Your task to perform on an android device: move a message to another label in the gmail app Image 0: 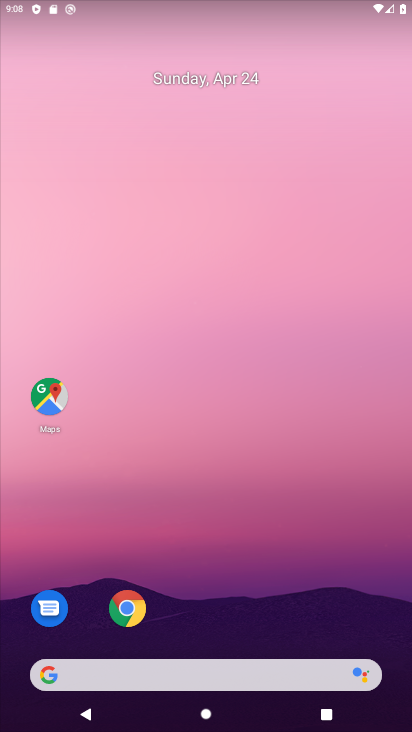
Step 0: drag from (361, 605) to (343, 66)
Your task to perform on an android device: move a message to another label in the gmail app Image 1: 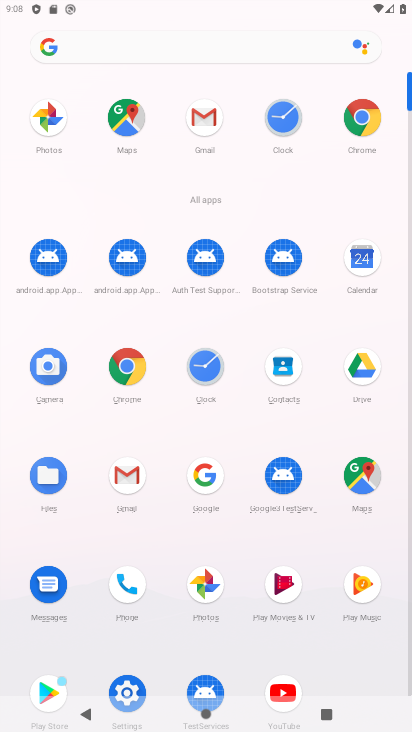
Step 1: click (131, 476)
Your task to perform on an android device: move a message to another label in the gmail app Image 2: 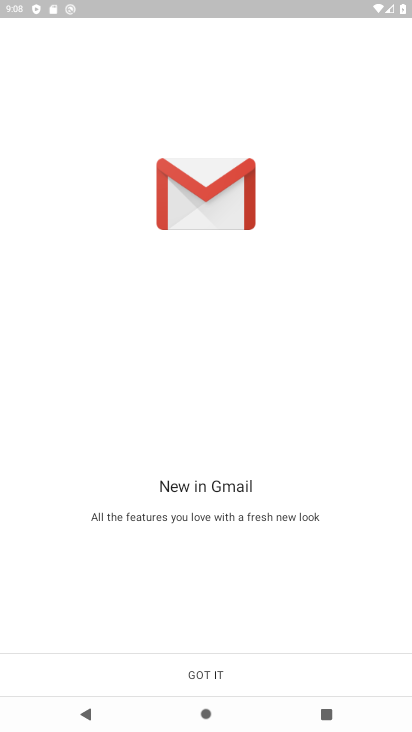
Step 2: click (236, 669)
Your task to perform on an android device: move a message to another label in the gmail app Image 3: 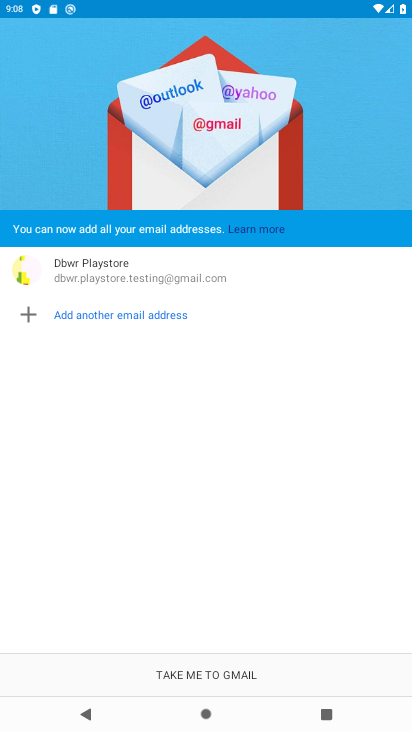
Step 3: click (236, 669)
Your task to perform on an android device: move a message to another label in the gmail app Image 4: 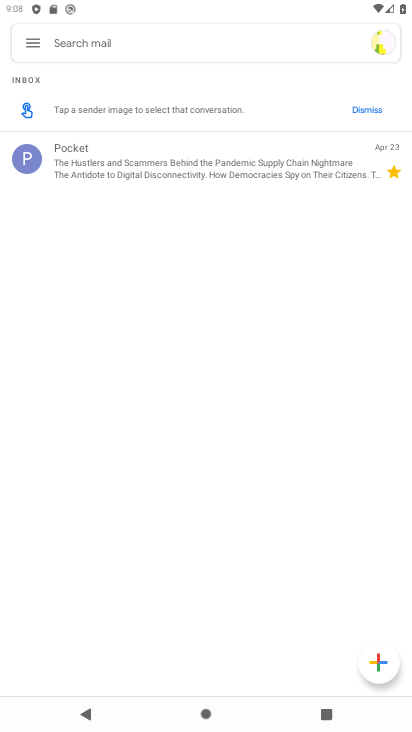
Step 4: click (264, 159)
Your task to perform on an android device: move a message to another label in the gmail app Image 5: 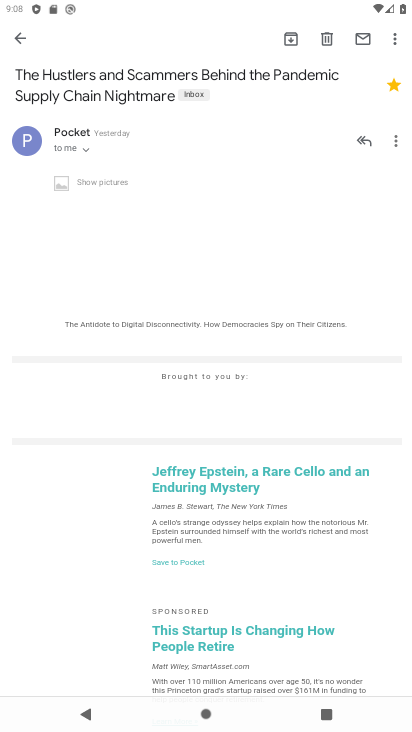
Step 5: click (87, 148)
Your task to perform on an android device: move a message to another label in the gmail app Image 6: 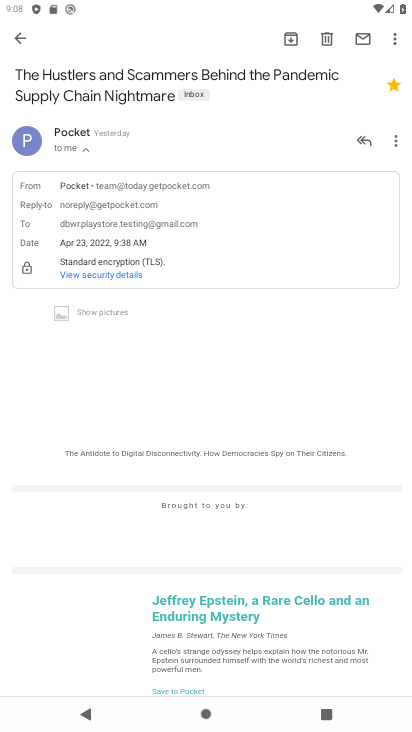
Step 6: click (86, 146)
Your task to perform on an android device: move a message to another label in the gmail app Image 7: 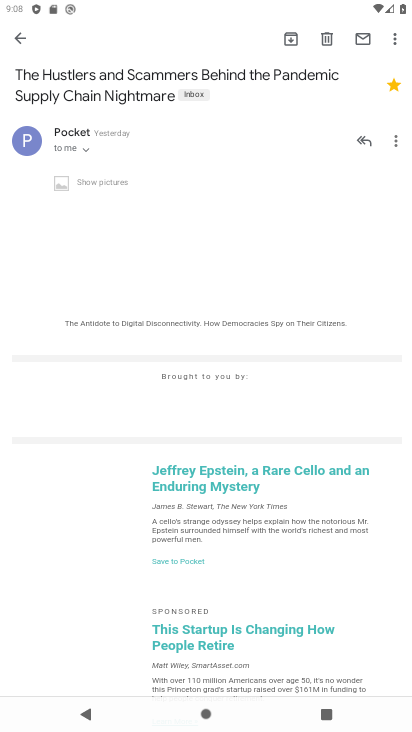
Step 7: click (393, 38)
Your task to perform on an android device: move a message to another label in the gmail app Image 8: 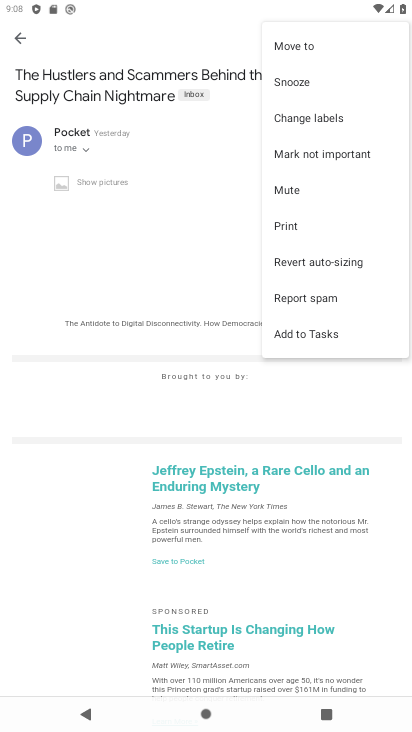
Step 8: click (284, 44)
Your task to perform on an android device: move a message to another label in the gmail app Image 9: 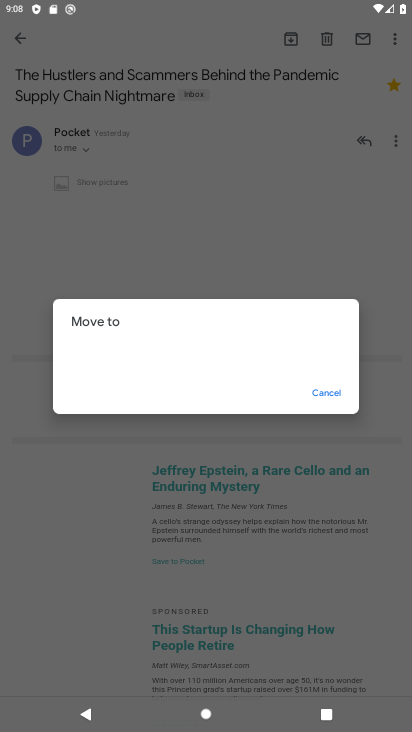
Step 9: click (331, 393)
Your task to perform on an android device: move a message to another label in the gmail app Image 10: 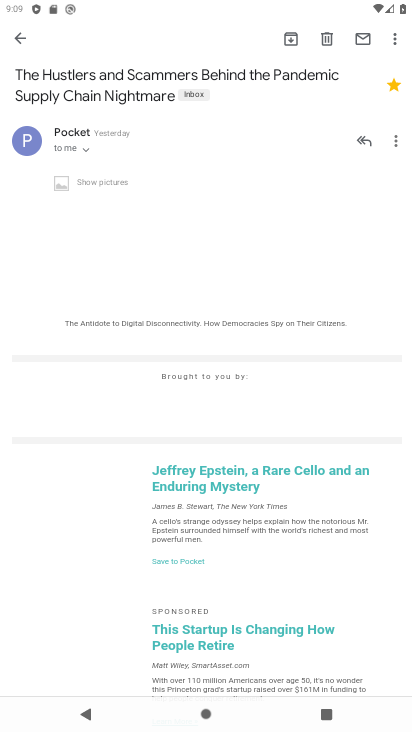
Step 10: click (11, 29)
Your task to perform on an android device: move a message to another label in the gmail app Image 11: 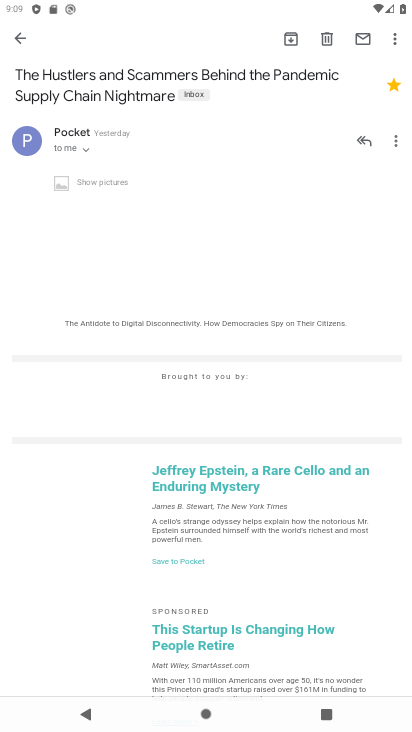
Step 11: task complete